Your task to perform on an android device: turn off wifi Image 0: 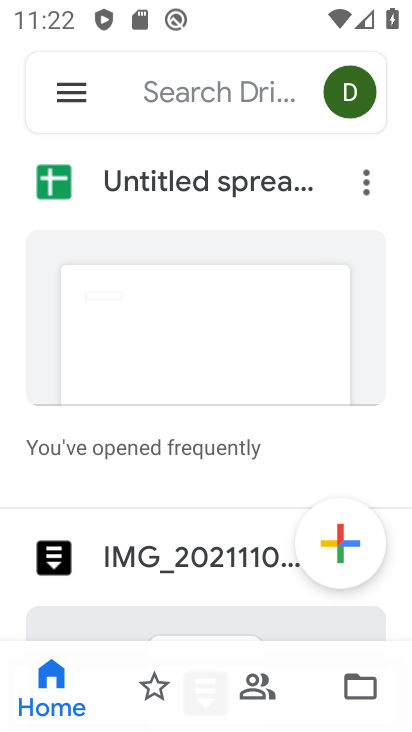
Step 0: press home button
Your task to perform on an android device: turn off wifi Image 1: 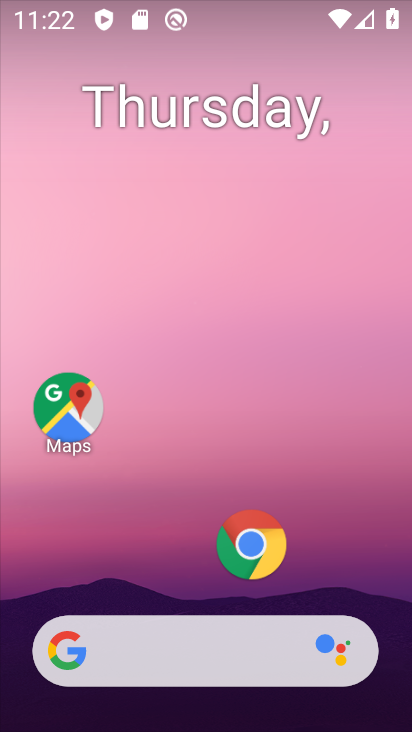
Step 1: drag from (205, 577) to (395, 308)
Your task to perform on an android device: turn off wifi Image 2: 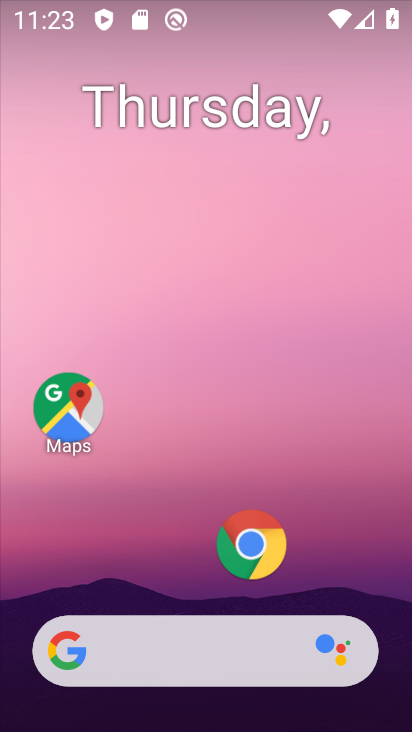
Step 2: drag from (195, 592) to (347, 70)
Your task to perform on an android device: turn off wifi Image 3: 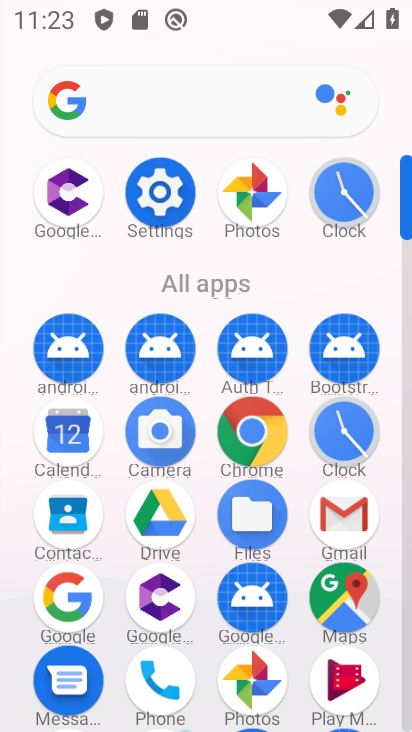
Step 3: click (159, 188)
Your task to perform on an android device: turn off wifi Image 4: 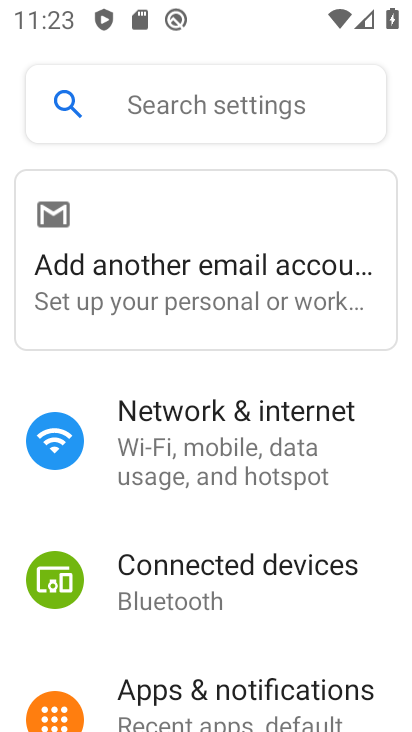
Step 4: click (220, 447)
Your task to perform on an android device: turn off wifi Image 5: 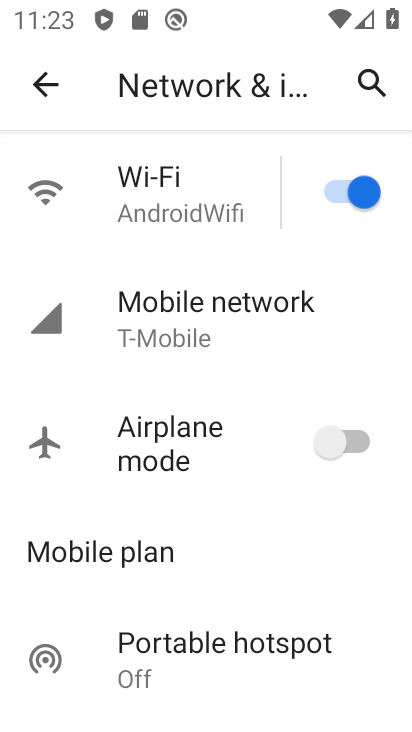
Step 5: click (338, 191)
Your task to perform on an android device: turn off wifi Image 6: 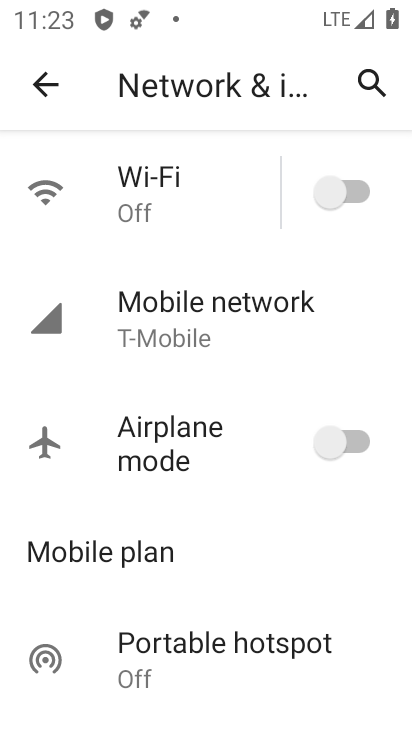
Step 6: task complete